Your task to perform on an android device: What is the recent news? Image 0: 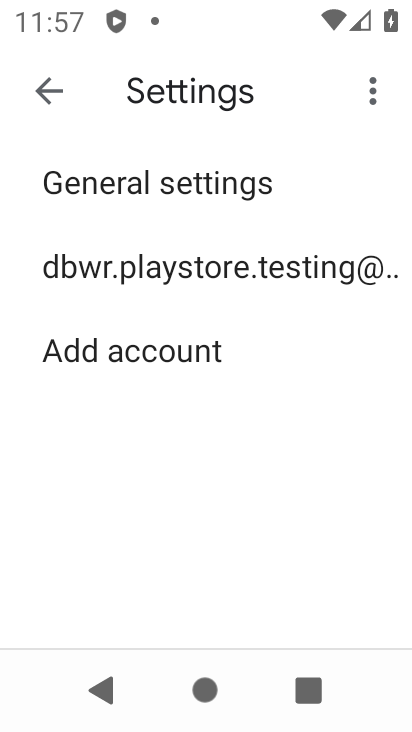
Step 0: press home button
Your task to perform on an android device: What is the recent news? Image 1: 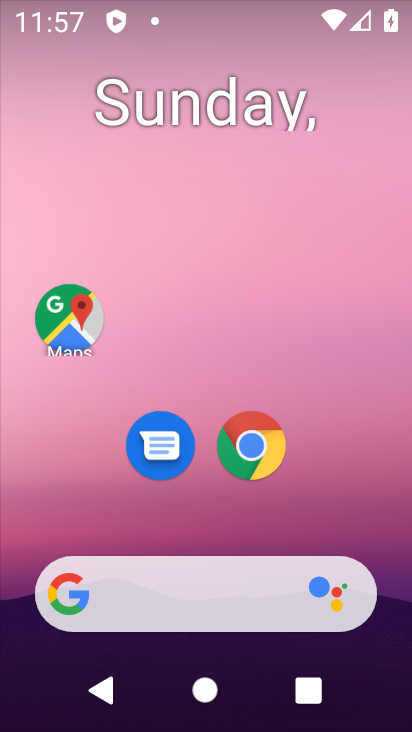
Step 1: click (242, 445)
Your task to perform on an android device: What is the recent news? Image 2: 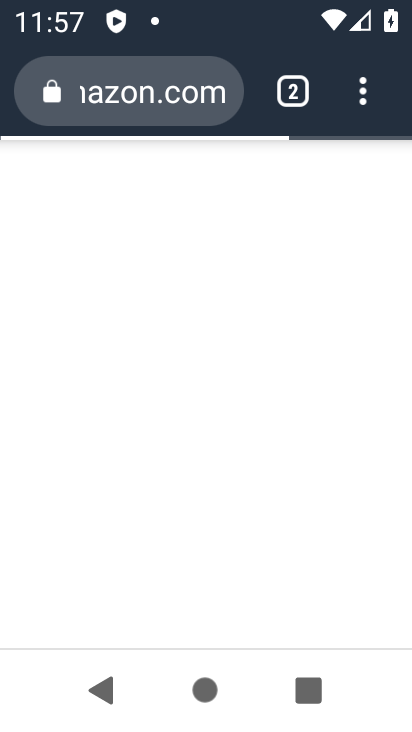
Step 2: click (168, 92)
Your task to perform on an android device: What is the recent news? Image 3: 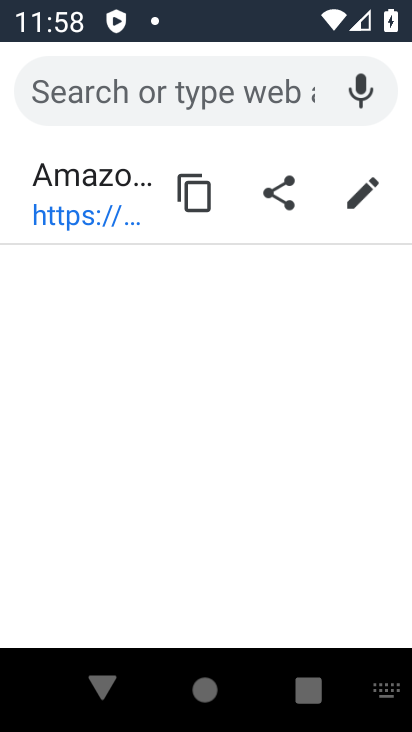
Step 3: type "What is the recent news?"
Your task to perform on an android device: What is the recent news? Image 4: 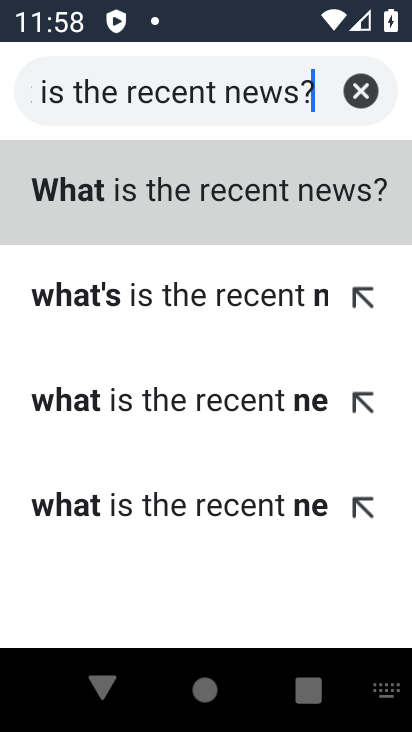
Step 4: click (174, 183)
Your task to perform on an android device: What is the recent news? Image 5: 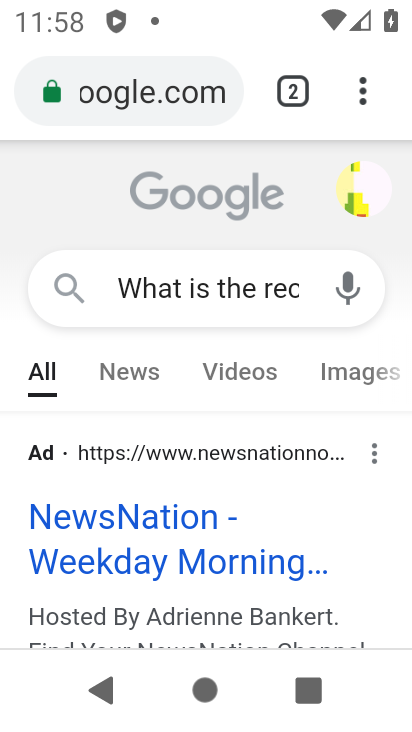
Step 5: drag from (285, 585) to (237, 225)
Your task to perform on an android device: What is the recent news? Image 6: 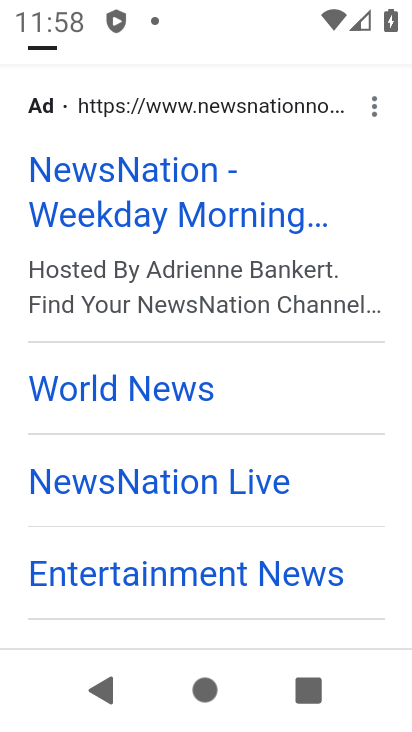
Step 6: drag from (199, 186) to (239, 449)
Your task to perform on an android device: What is the recent news? Image 7: 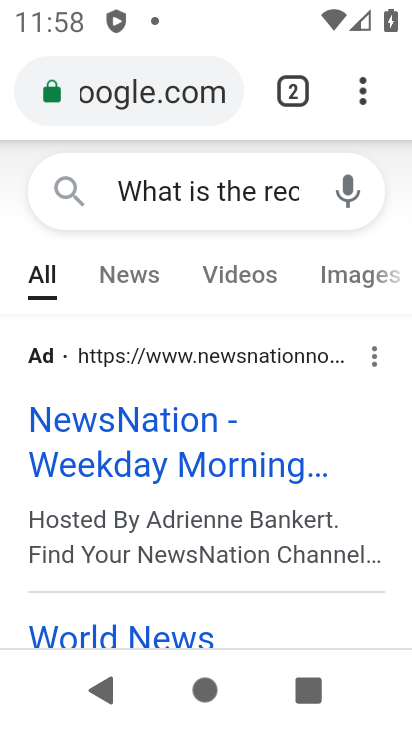
Step 7: click (112, 275)
Your task to perform on an android device: What is the recent news? Image 8: 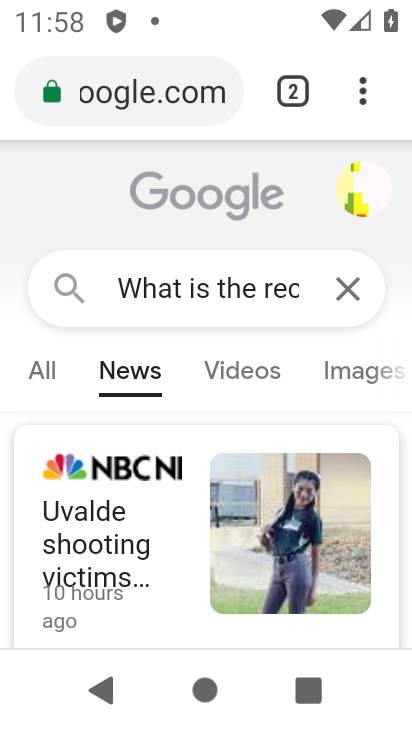
Step 8: task complete